Your task to perform on an android device: Go to display settings Image 0: 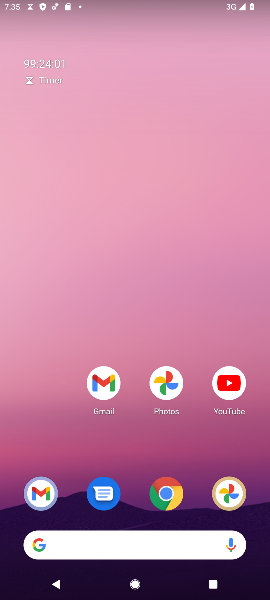
Step 0: drag from (158, 488) to (160, 131)
Your task to perform on an android device: Go to display settings Image 1: 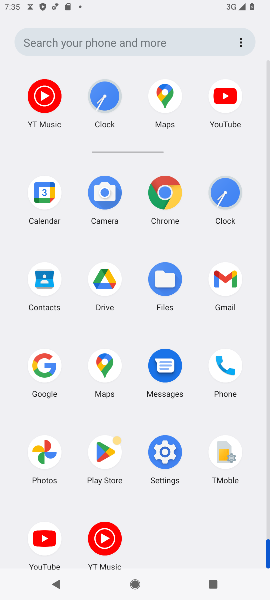
Step 1: click (160, 442)
Your task to perform on an android device: Go to display settings Image 2: 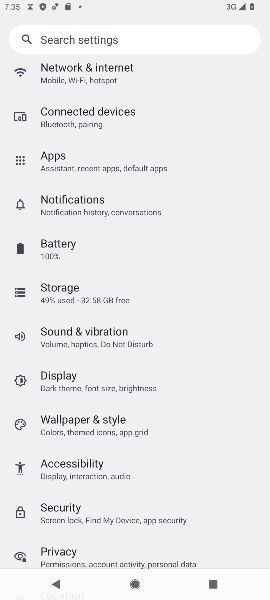
Step 2: drag from (95, 509) to (116, 143)
Your task to perform on an android device: Go to display settings Image 3: 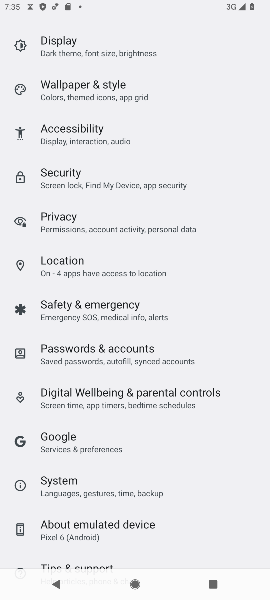
Step 3: drag from (83, 99) to (91, 198)
Your task to perform on an android device: Go to display settings Image 4: 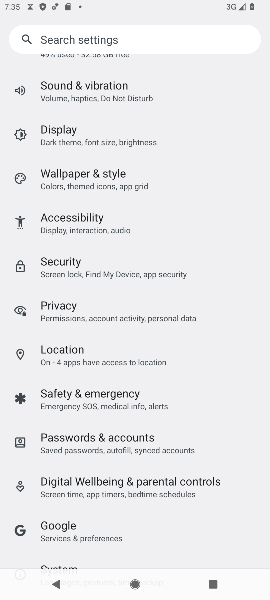
Step 4: click (73, 139)
Your task to perform on an android device: Go to display settings Image 5: 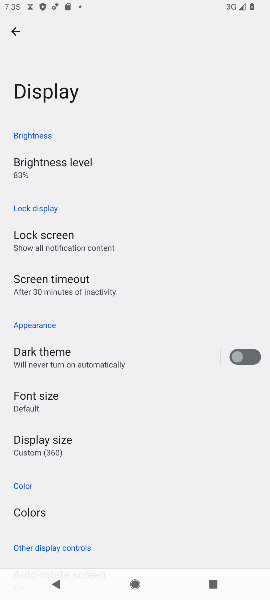
Step 5: task complete